Your task to perform on an android device: Open settings Image 0: 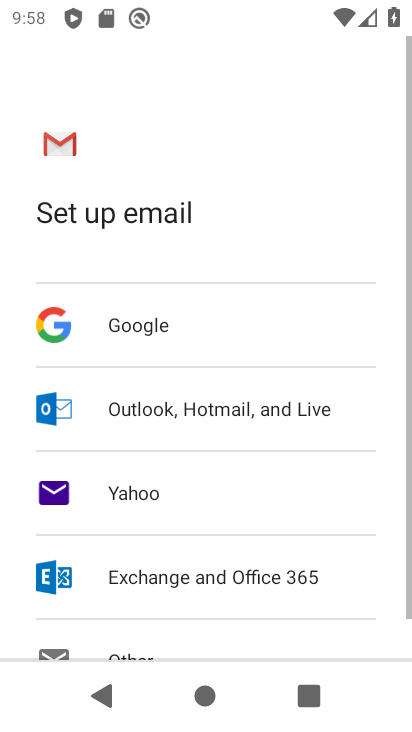
Step 0: press home button
Your task to perform on an android device: Open settings Image 1: 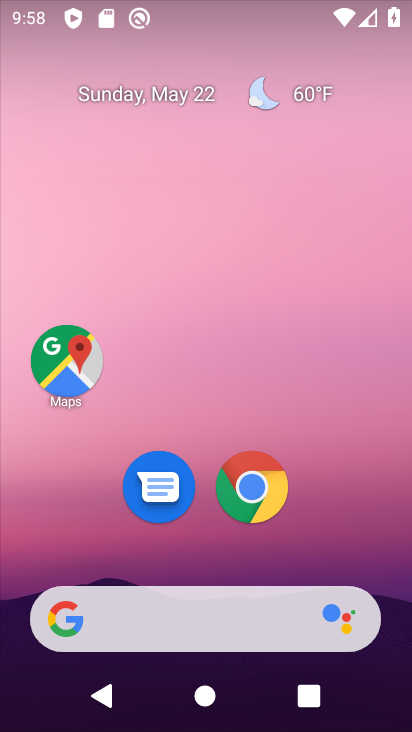
Step 1: drag from (384, 562) to (299, 28)
Your task to perform on an android device: Open settings Image 2: 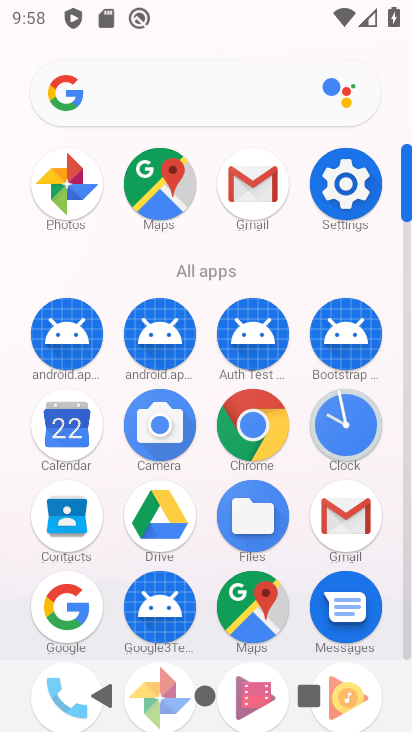
Step 2: click (349, 170)
Your task to perform on an android device: Open settings Image 3: 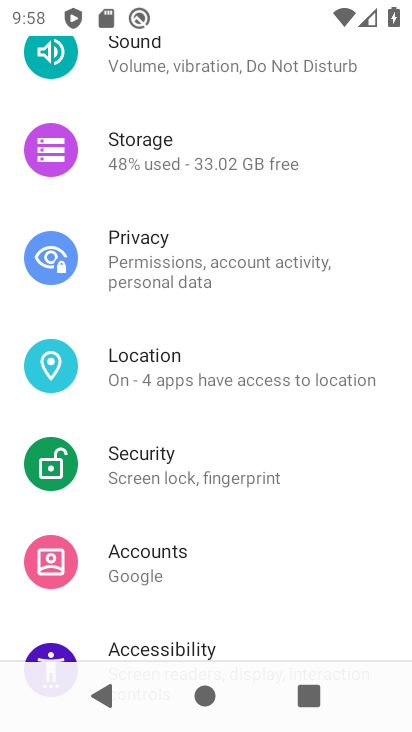
Step 3: task complete